Your task to perform on an android device: open the mobile data screen to see how much data has been used Image 0: 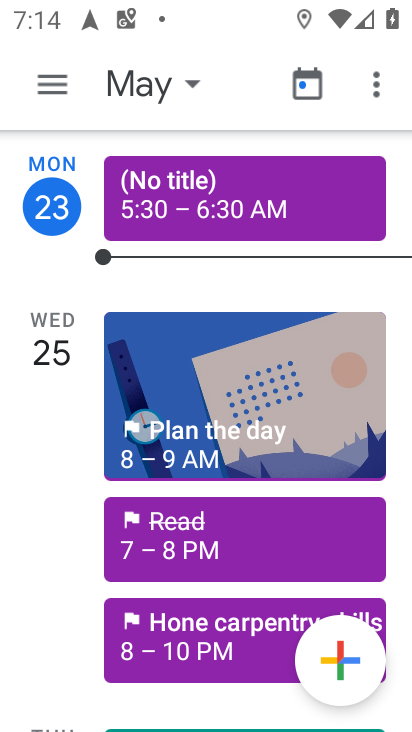
Step 0: press home button
Your task to perform on an android device: open the mobile data screen to see how much data has been used Image 1: 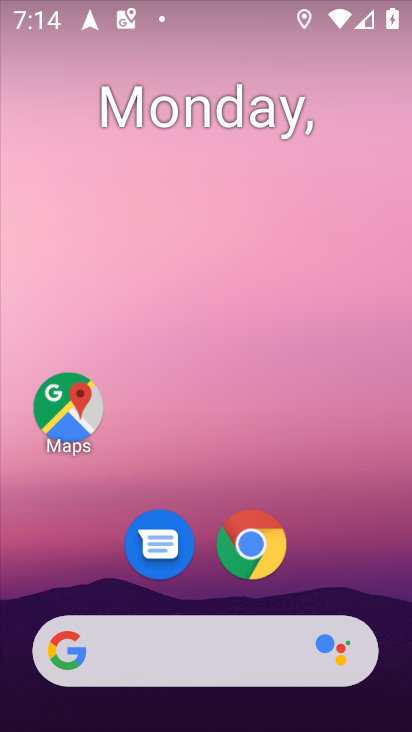
Step 1: drag from (336, 529) to (254, 48)
Your task to perform on an android device: open the mobile data screen to see how much data has been used Image 2: 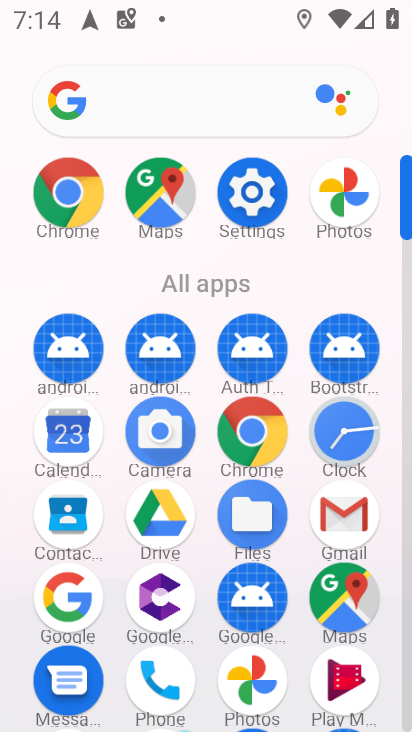
Step 2: click (251, 197)
Your task to perform on an android device: open the mobile data screen to see how much data has been used Image 3: 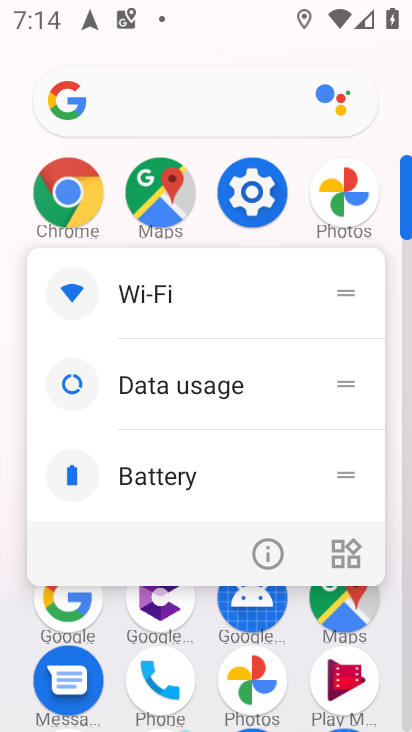
Step 3: click (246, 185)
Your task to perform on an android device: open the mobile data screen to see how much data has been used Image 4: 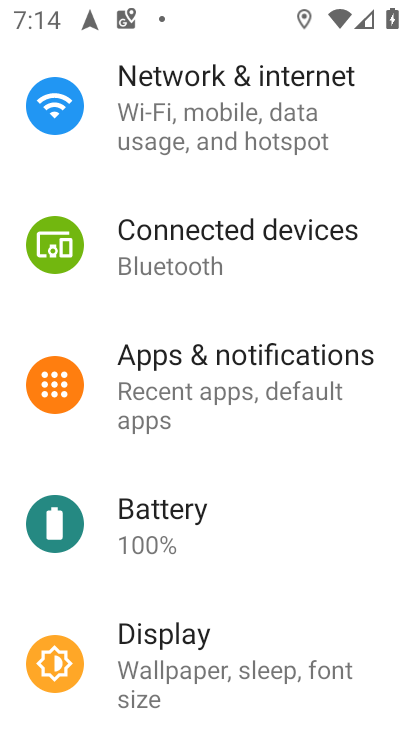
Step 4: click (200, 83)
Your task to perform on an android device: open the mobile data screen to see how much data has been used Image 5: 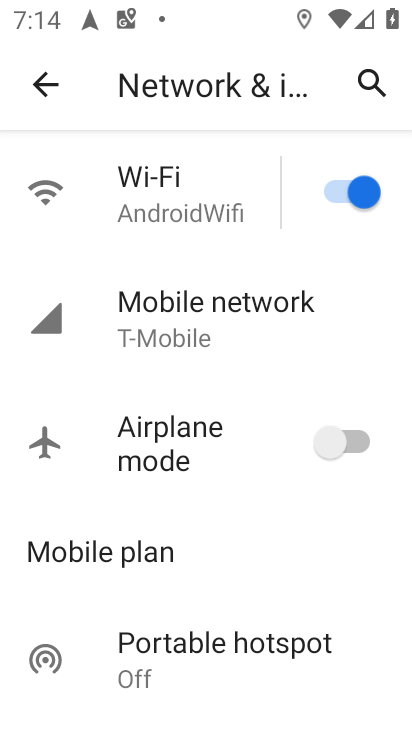
Step 5: click (195, 297)
Your task to perform on an android device: open the mobile data screen to see how much data has been used Image 6: 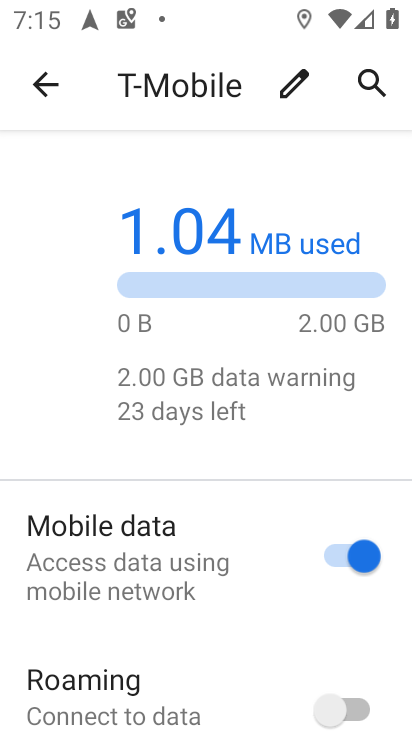
Step 6: task complete